Your task to perform on an android device: turn on javascript in the chrome app Image 0: 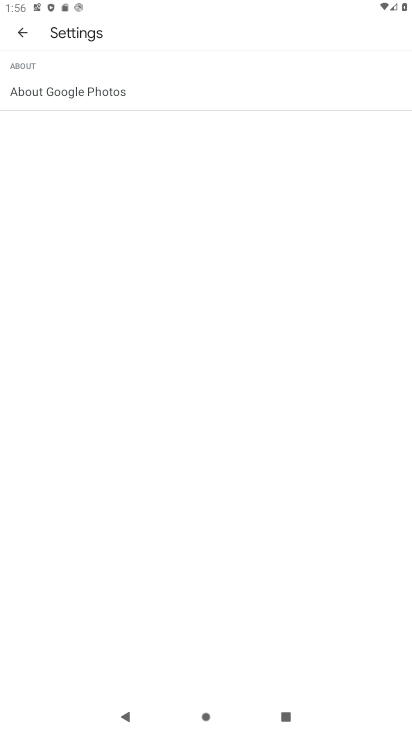
Step 0: press home button
Your task to perform on an android device: turn on javascript in the chrome app Image 1: 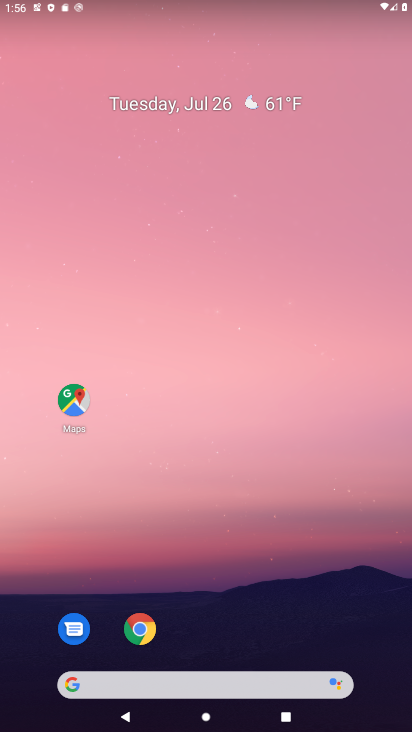
Step 1: click (140, 640)
Your task to perform on an android device: turn on javascript in the chrome app Image 2: 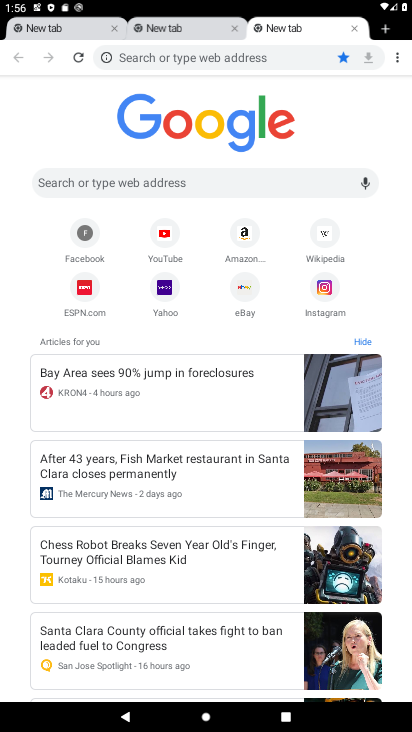
Step 2: click (396, 63)
Your task to perform on an android device: turn on javascript in the chrome app Image 3: 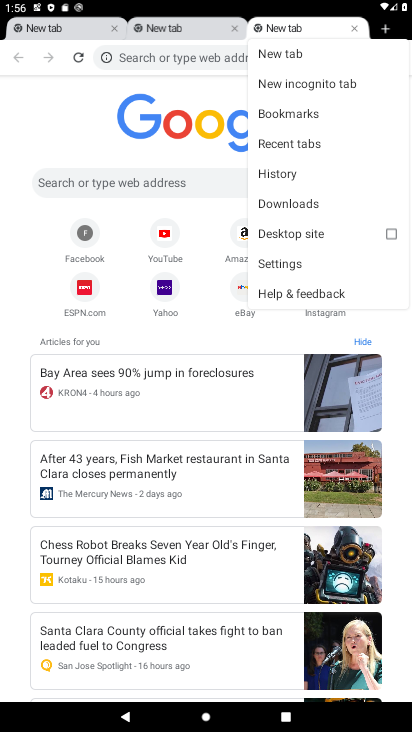
Step 3: click (288, 269)
Your task to perform on an android device: turn on javascript in the chrome app Image 4: 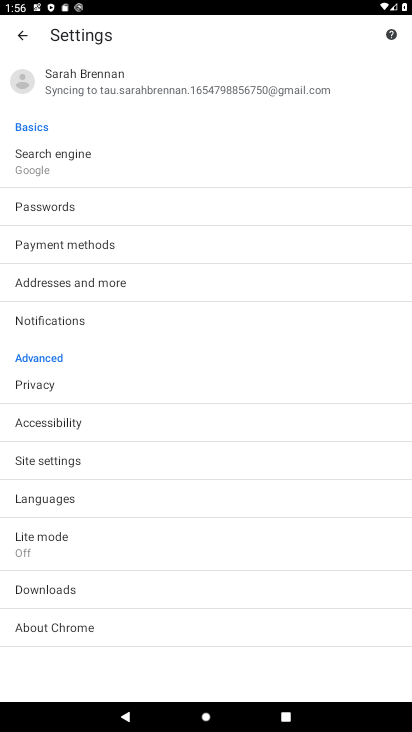
Step 4: click (64, 467)
Your task to perform on an android device: turn on javascript in the chrome app Image 5: 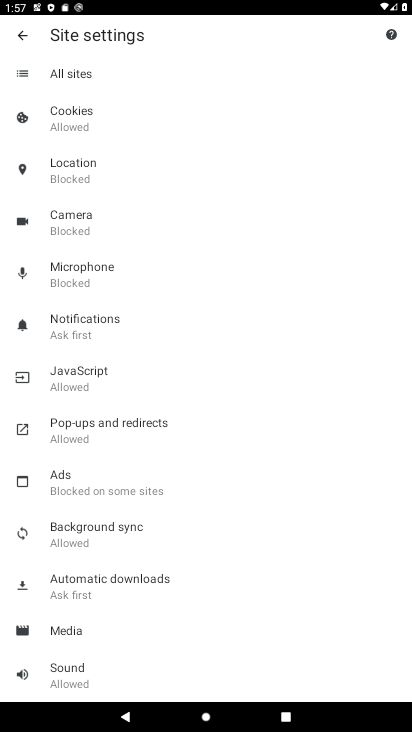
Step 5: click (76, 378)
Your task to perform on an android device: turn on javascript in the chrome app Image 6: 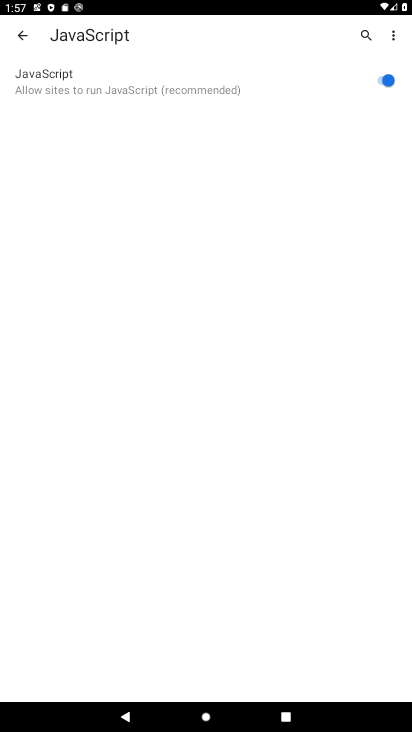
Step 6: task complete